Your task to perform on an android device: toggle pop-ups in chrome Image 0: 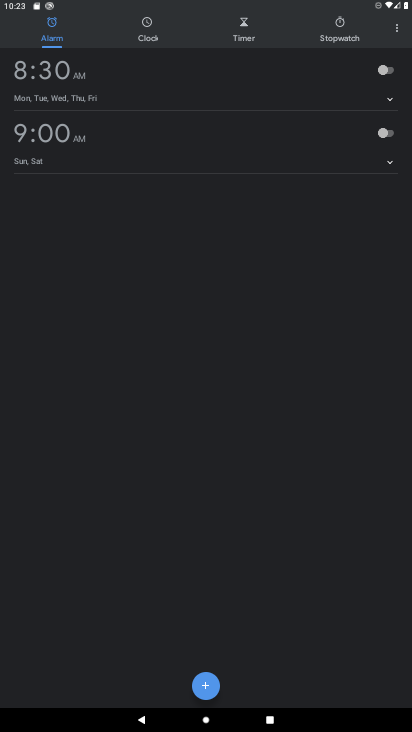
Step 0: press home button
Your task to perform on an android device: toggle pop-ups in chrome Image 1: 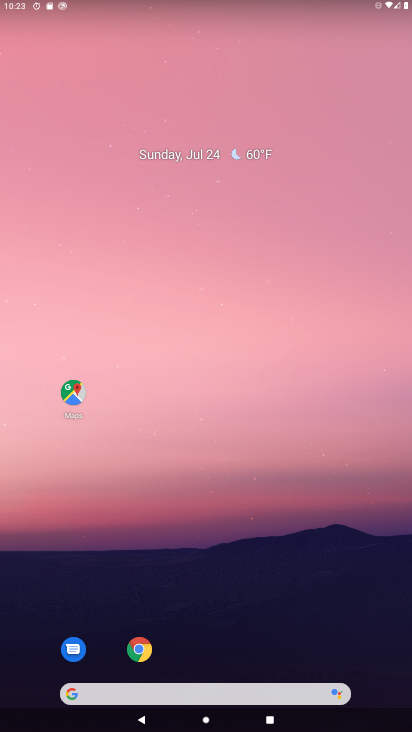
Step 1: drag from (333, 504) to (276, 66)
Your task to perform on an android device: toggle pop-ups in chrome Image 2: 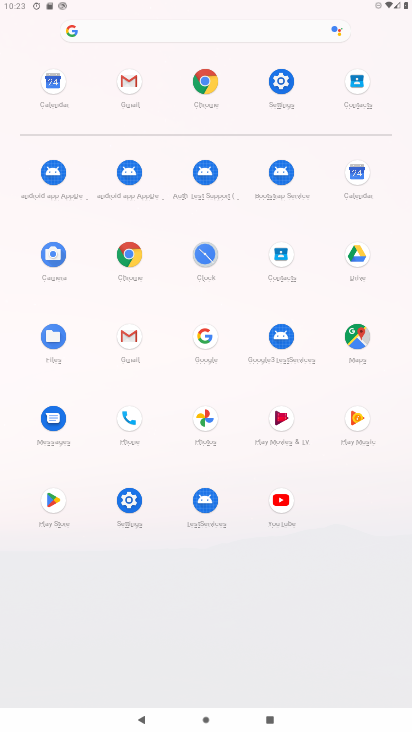
Step 2: click (204, 80)
Your task to perform on an android device: toggle pop-ups in chrome Image 3: 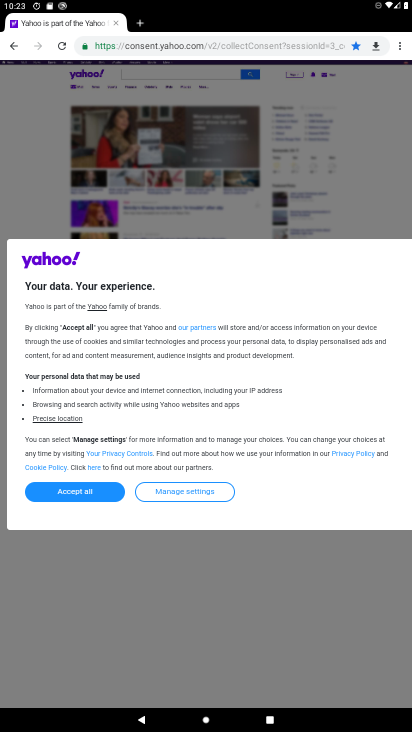
Step 3: drag from (400, 48) to (309, 327)
Your task to perform on an android device: toggle pop-ups in chrome Image 4: 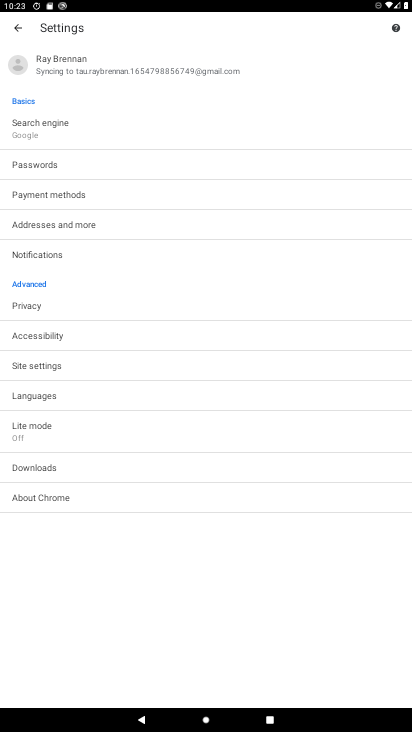
Step 4: click (59, 362)
Your task to perform on an android device: toggle pop-ups in chrome Image 5: 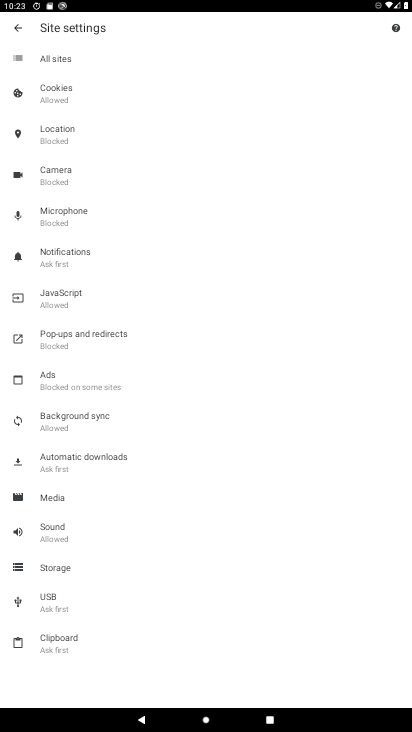
Step 5: click (63, 336)
Your task to perform on an android device: toggle pop-ups in chrome Image 6: 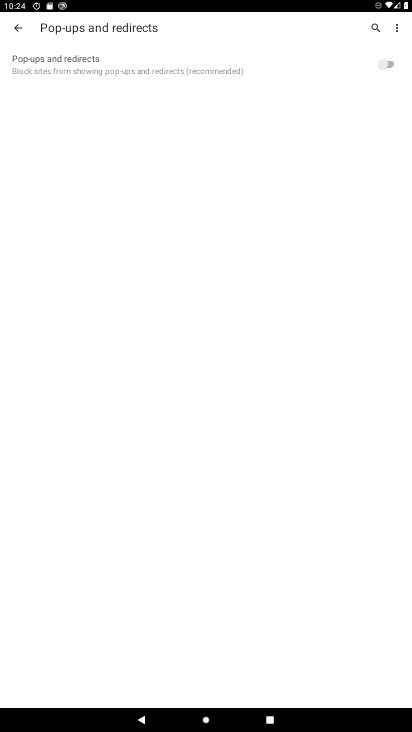
Step 6: click (386, 64)
Your task to perform on an android device: toggle pop-ups in chrome Image 7: 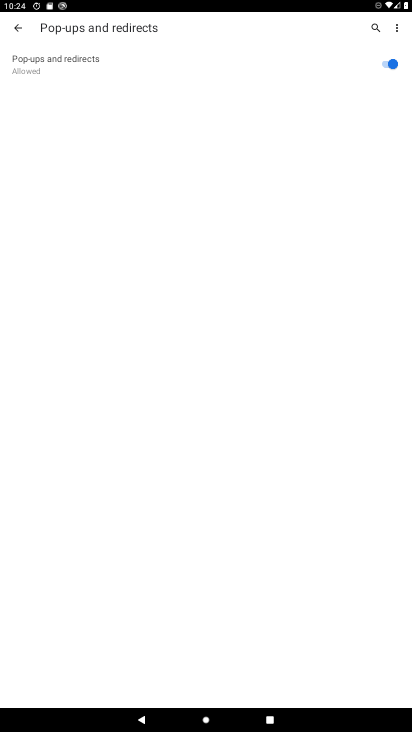
Step 7: task complete